Your task to perform on an android device: set an alarm Image 0: 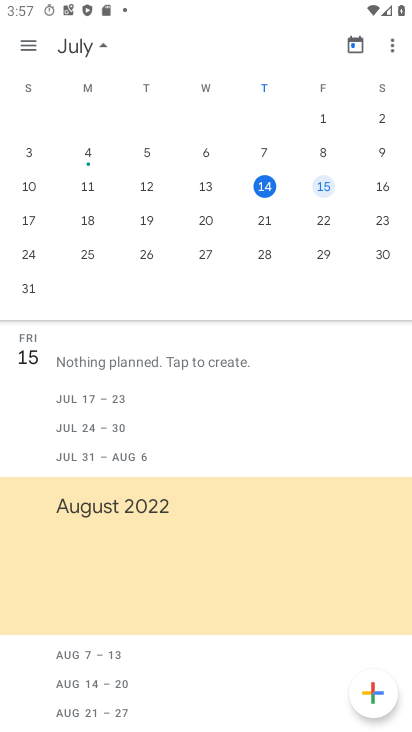
Step 0: press home button
Your task to perform on an android device: set an alarm Image 1: 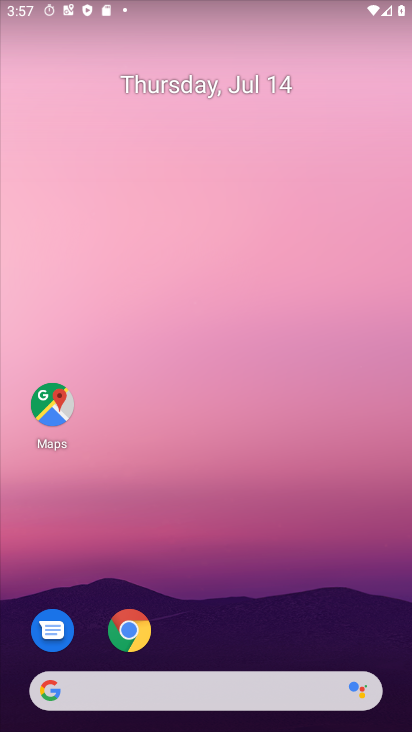
Step 1: drag from (219, 686) to (242, 164)
Your task to perform on an android device: set an alarm Image 2: 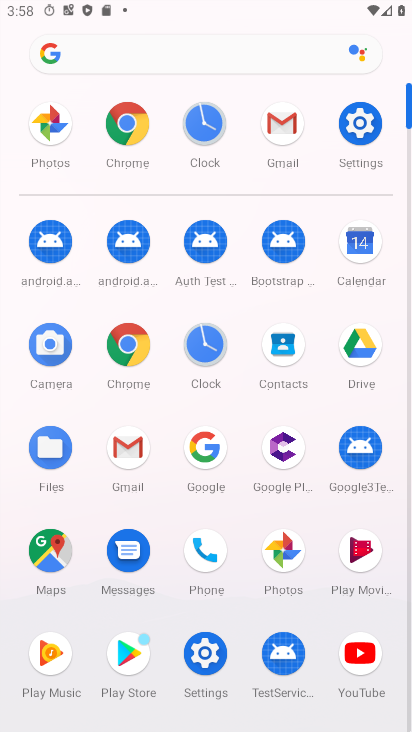
Step 2: click (213, 343)
Your task to perform on an android device: set an alarm Image 3: 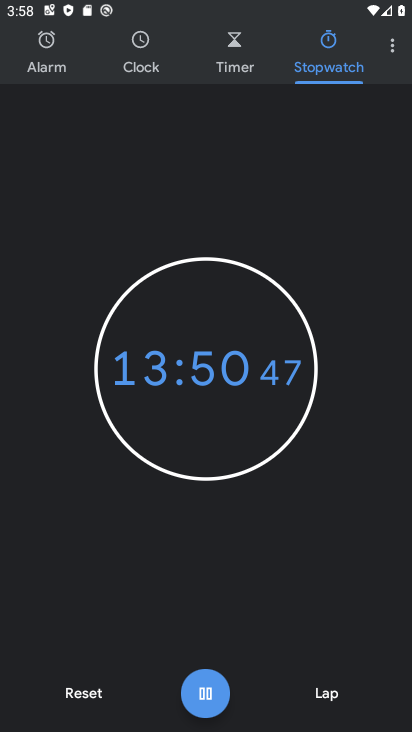
Step 3: click (41, 54)
Your task to perform on an android device: set an alarm Image 4: 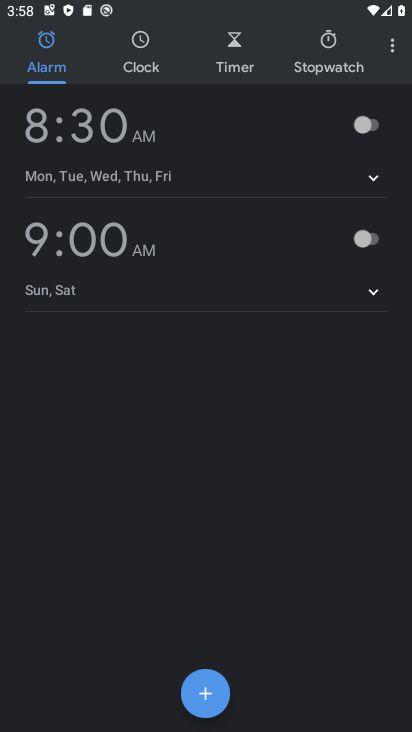
Step 4: click (201, 695)
Your task to perform on an android device: set an alarm Image 5: 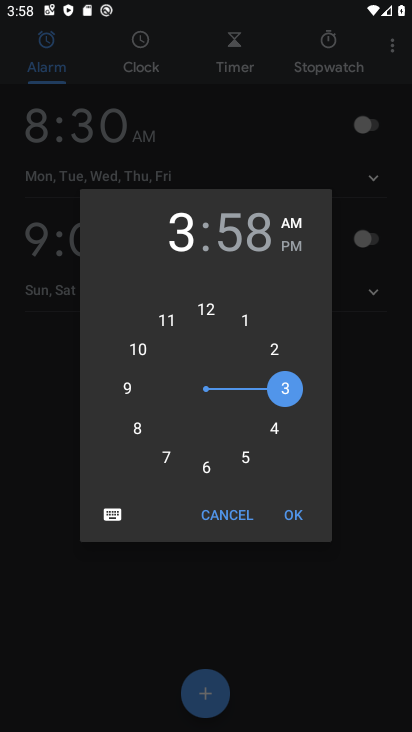
Step 5: click (205, 463)
Your task to perform on an android device: set an alarm Image 6: 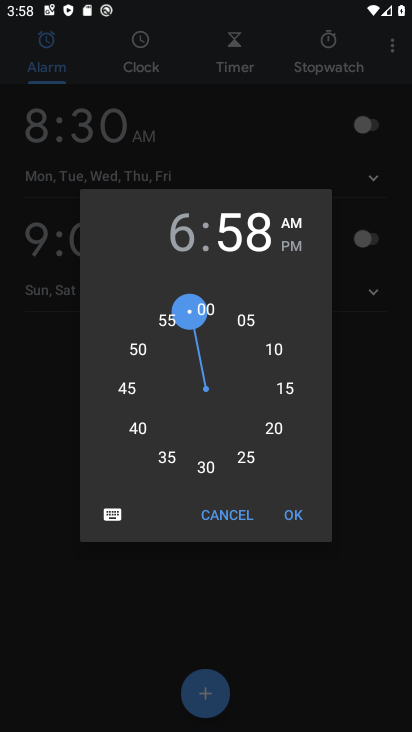
Step 6: click (289, 509)
Your task to perform on an android device: set an alarm Image 7: 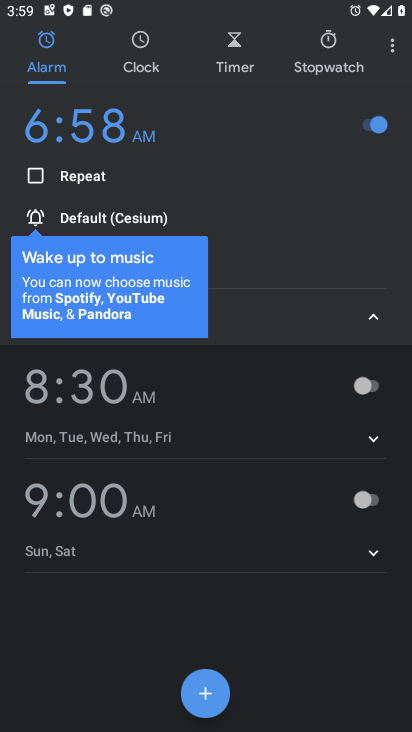
Step 7: task complete